Your task to perform on an android device: Search for pizza restaurants on Maps Image 0: 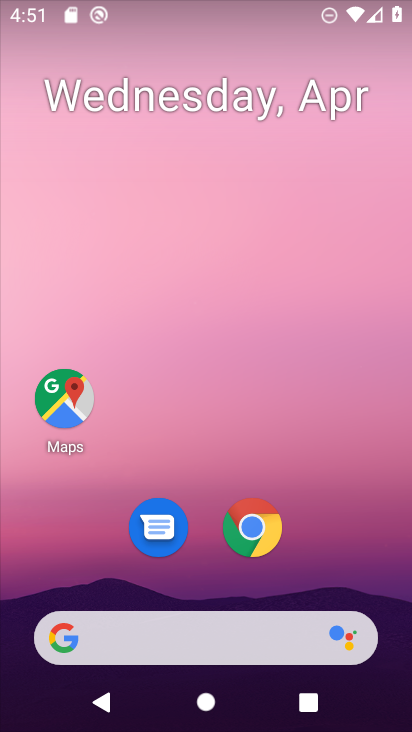
Step 0: click (61, 405)
Your task to perform on an android device: Search for pizza restaurants on Maps Image 1: 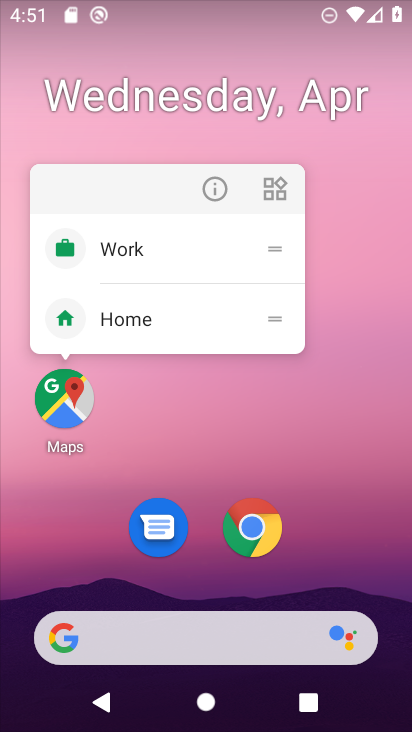
Step 1: click (61, 405)
Your task to perform on an android device: Search for pizza restaurants on Maps Image 2: 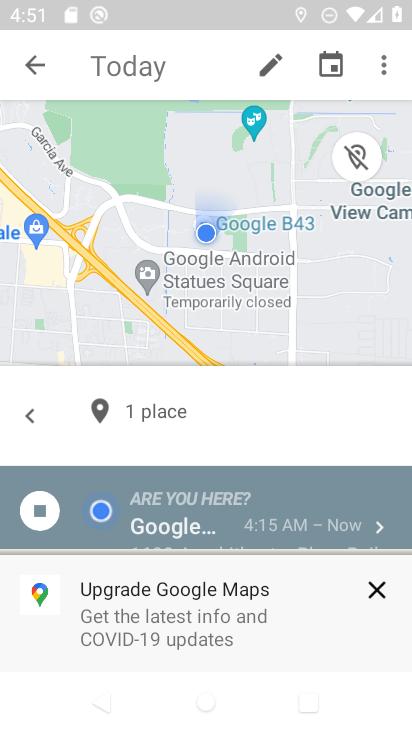
Step 2: click (33, 72)
Your task to perform on an android device: Search for pizza restaurants on Maps Image 3: 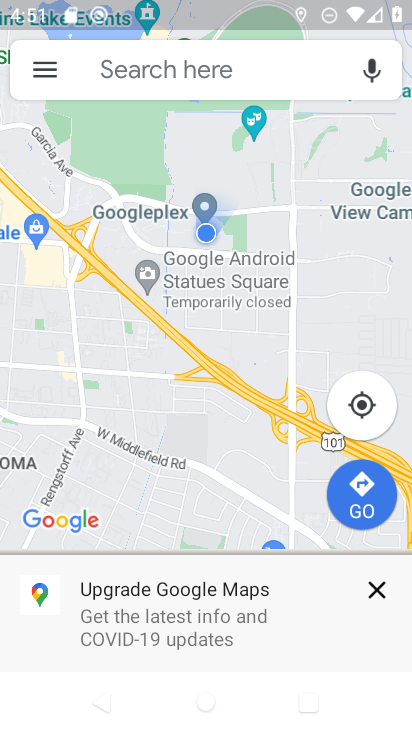
Step 3: click (110, 77)
Your task to perform on an android device: Search for pizza restaurants on Maps Image 4: 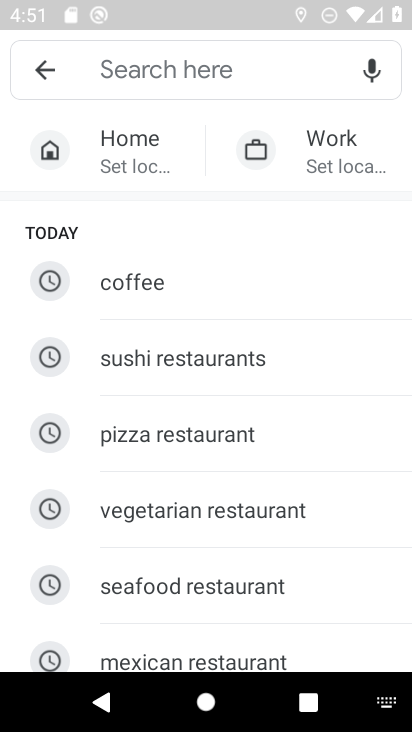
Step 4: type "pizza restaurant "
Your task to perform on an android device: Search for pizza restaurants on Maps Image 5: 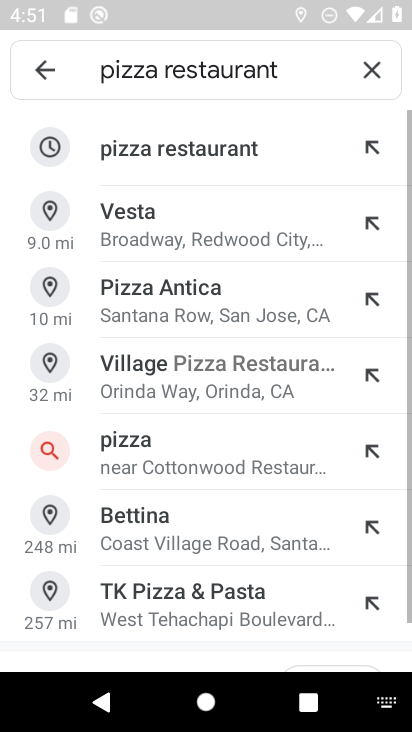
Step 5: click (115, 155)
Your task to perform on an android device: Search for pizza restaurants on Maps Image 6: 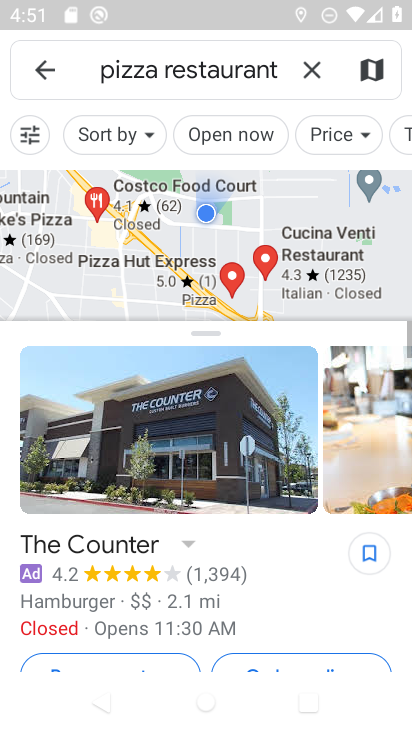
Step 6: task complete